Your task to perform on an android device: toggle pop-ups in chrome Image 0: 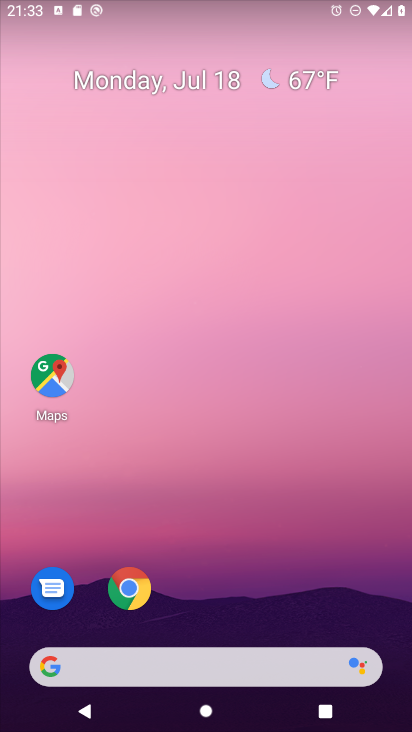
Step 0: click (132, 588)
Your task to perform on an android device: toggle pop-ups in chrome Image 1: 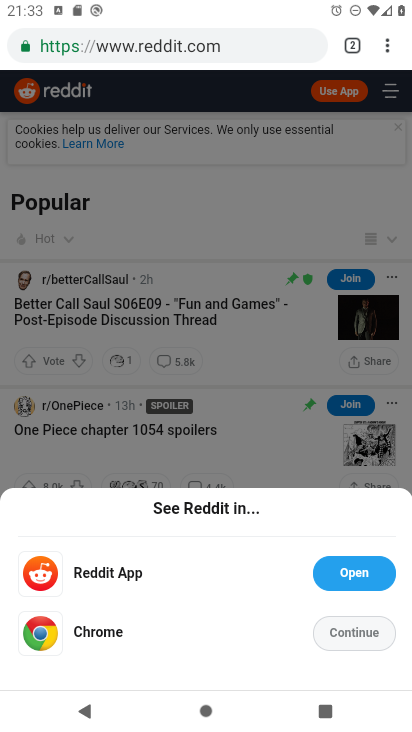
Step 1: click (382, 49)
Your task to perform on an android device: toggle pop-ups in chrome Image 2: 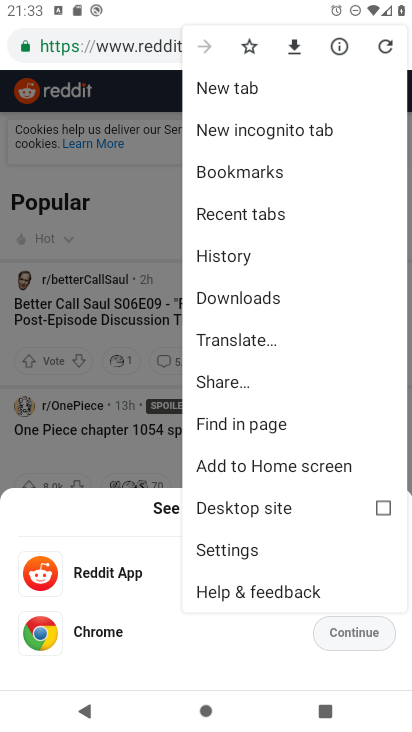
Step 2: click (226, 549)
Your task to perform on an android device: toggle pop-ups in chrome Image 3: 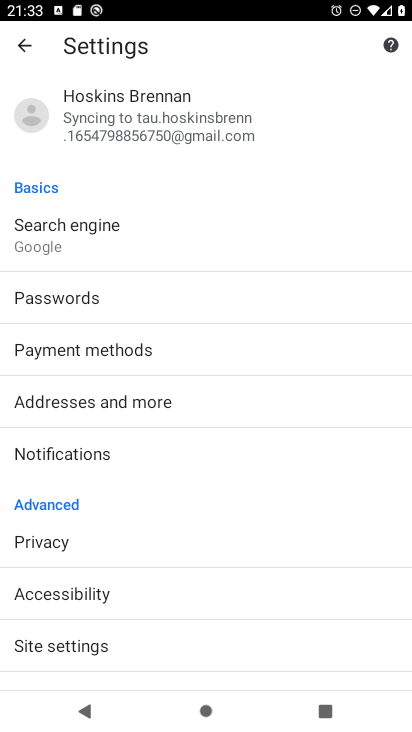
Step 3: drag from (183, 612) to (186, 417)
Your task to perform on an android device: toggle pop-ups in chrome Image 4: 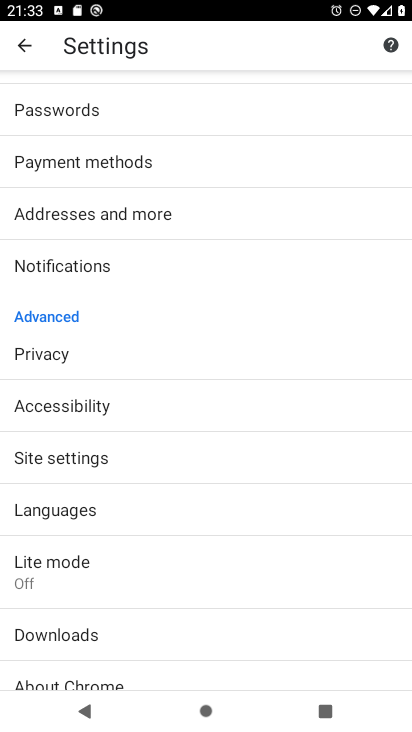
Step 4: click (48, 461)
Your task to perform on an android device: toggle pop-ups in chrome Image 5: 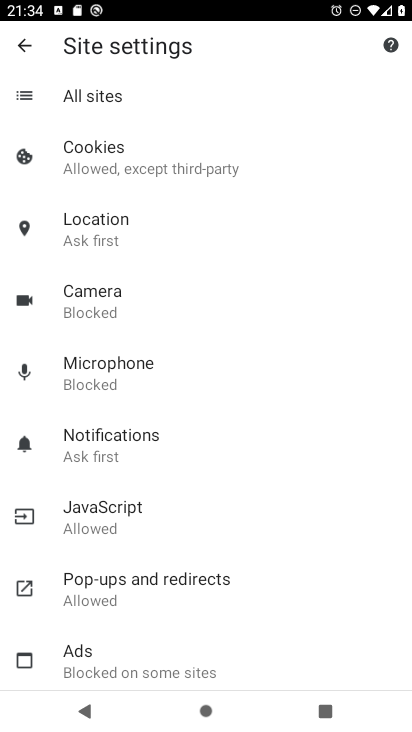
Step 5: click (118, 586)
Your task to perform on an android device: toggle pop-ups in chrome Image 6: 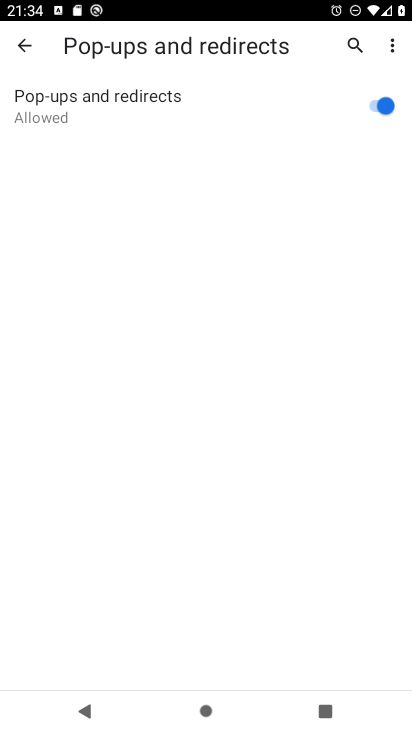
Step 6: click (371, 103)
Your task to perform on an android device: toggle pop-ups in chrome Image 7: 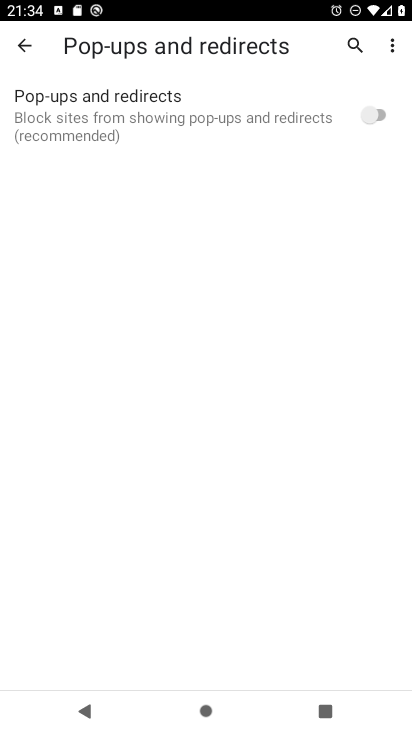
Step 7: task complete